Your task to perform on an android device: open device folders in google photos Image 0: 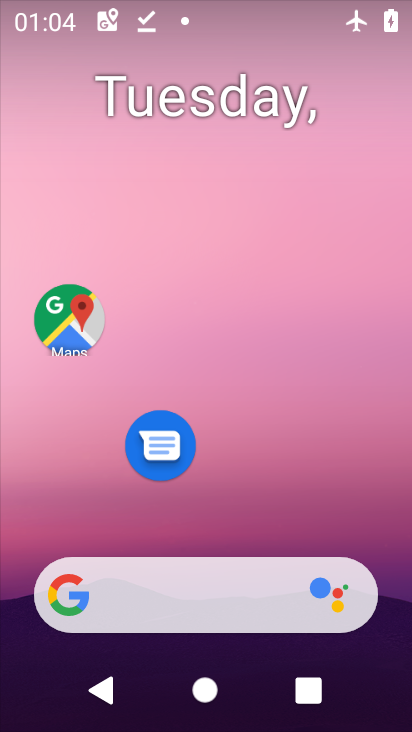
Step 0: drag from (281, 476) to (221, 129)
Your task to perform on an android device: open device folders in google photos Image 1: 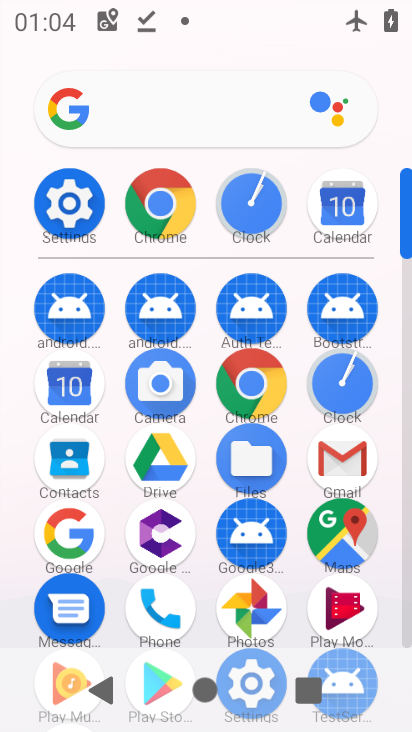
Step 1: click (248, 605)
Your task to perform on an android device: open device folders in google photos Image 2: 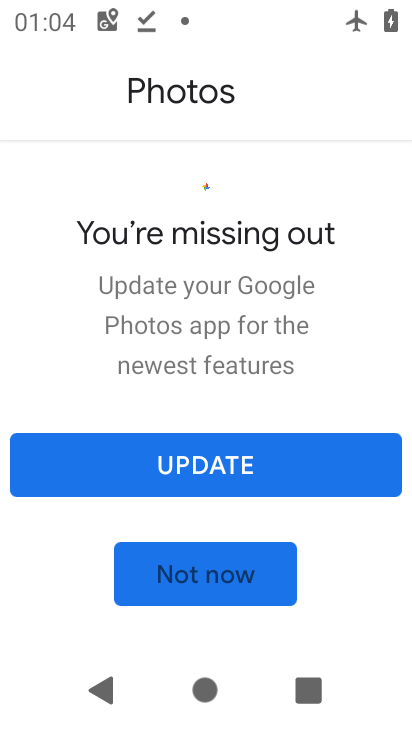
Step 2: click (191, 462)
Your task to perform on an android device: open device folders in google photos Image 3: 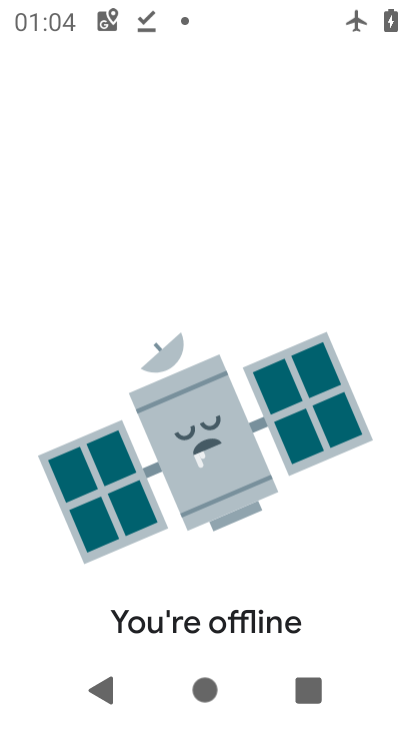
Step 3: task complete